Your task to perform on an android device: Show the shopping cart on target. Search for "dell alienware" on target, select the first entry, add it to the cart, then select checkout. Image 0: 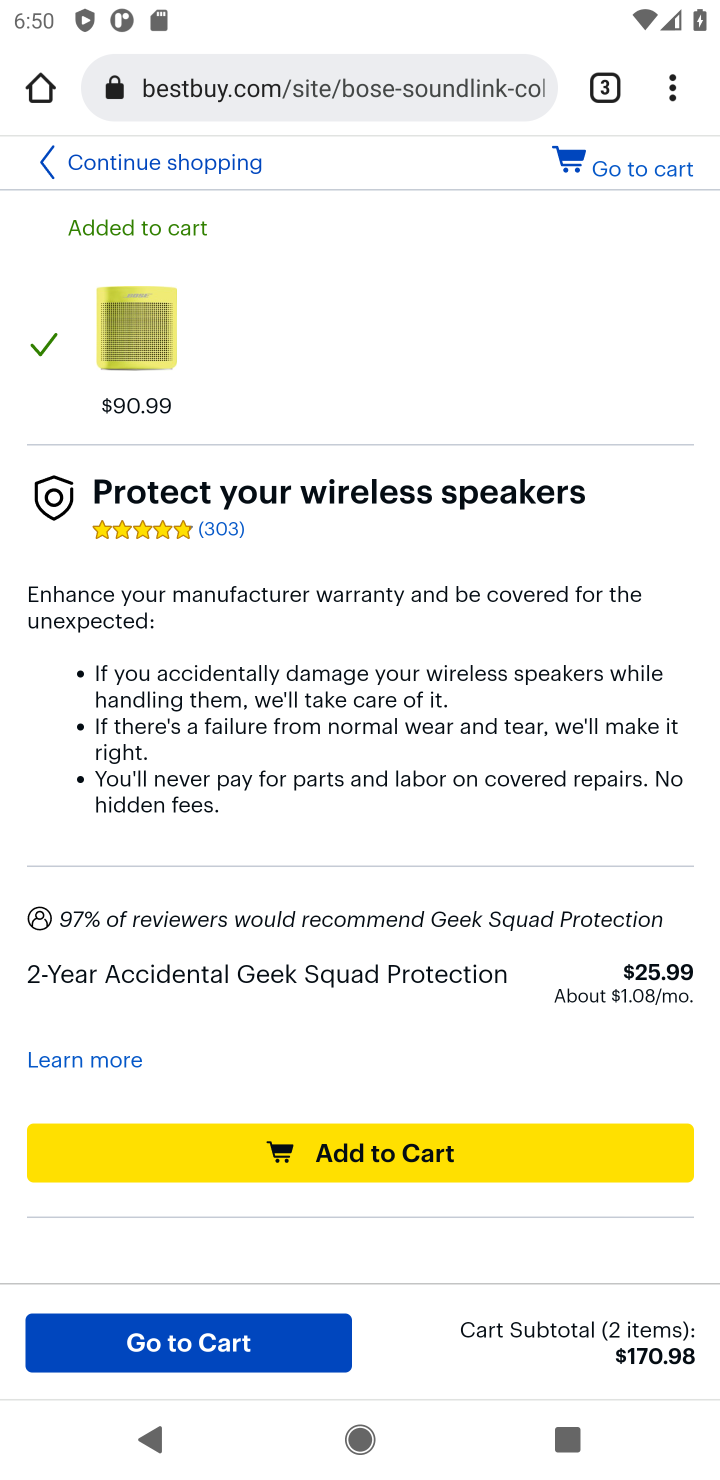
Step 0: task complete